Your task to perform on an android device: Open Chrome and go to settings Image 0: 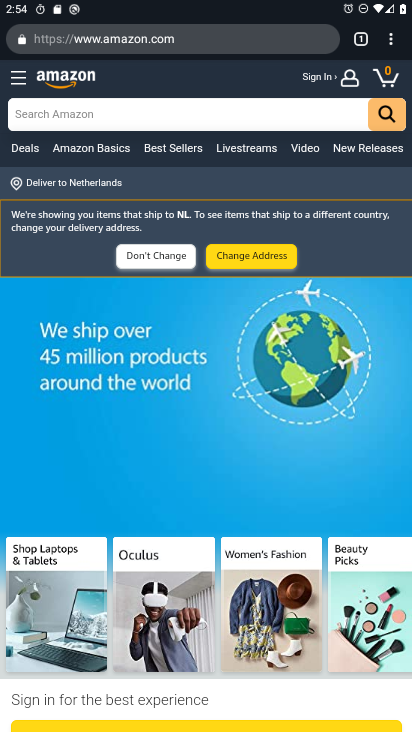
Step 0: drag from (271, 524) to (326, 234)
Your task to perform on an android device: Open Chrome and go to settings Image 1: 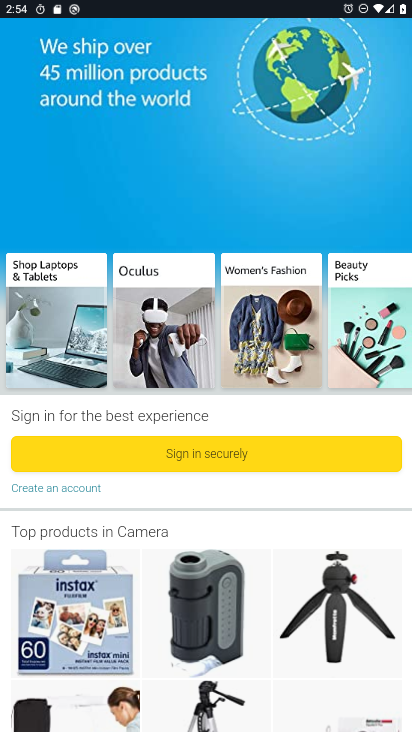
Step 1: task complete